Your task to perform on an android device: Show me recent news Image 0: 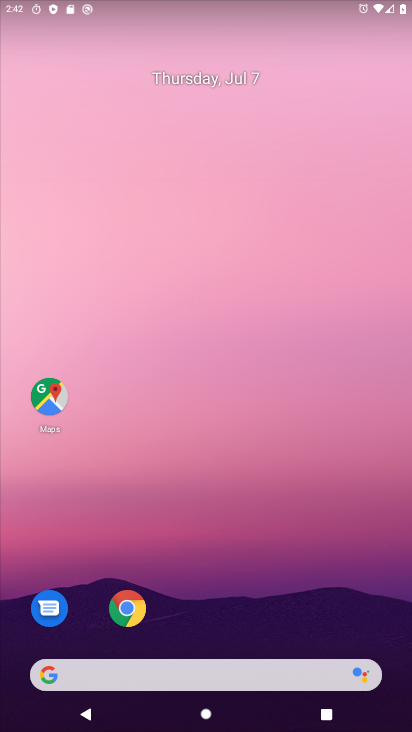
Step 0: drag from (3, 272) to (163, 256)
Your task to perform on an android device: Show me recent news Image 1: 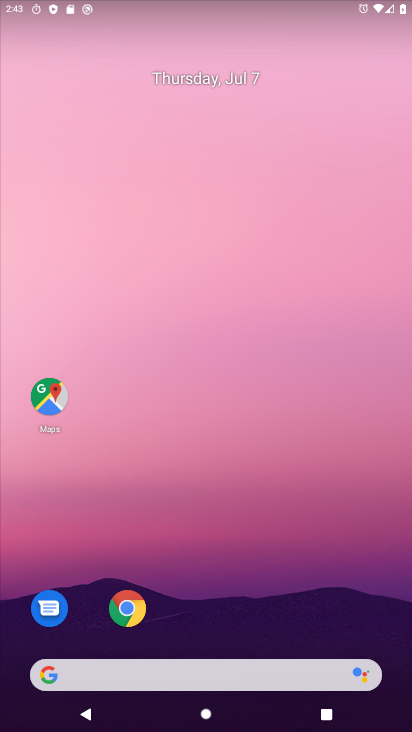
Step 1: click (383, 254)
Your task to perform on an android device: Show me recent news Image 2: 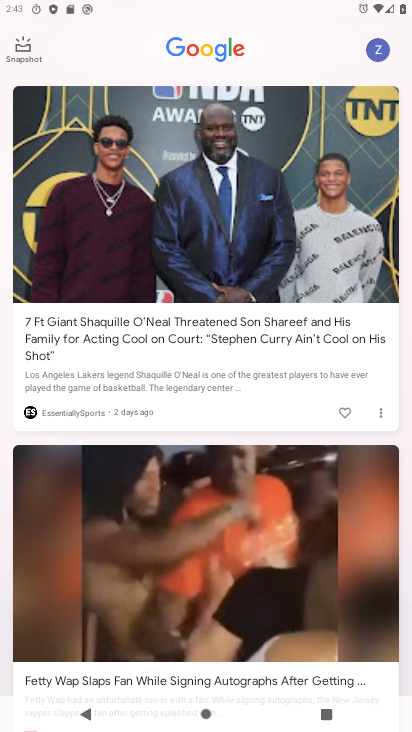
Step 2: task complete